Your task to perform on an android device: Go to calendar. Show me events next week Image 0: 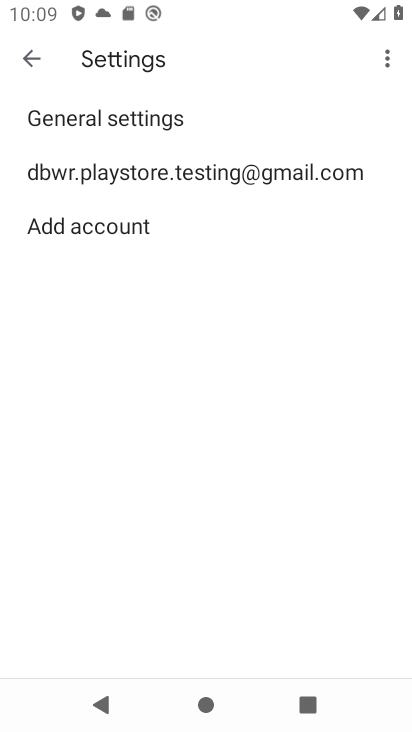
Step 0: press home button
Your task to perform on an android device: Go to calendar. Show me events next week Image 1: 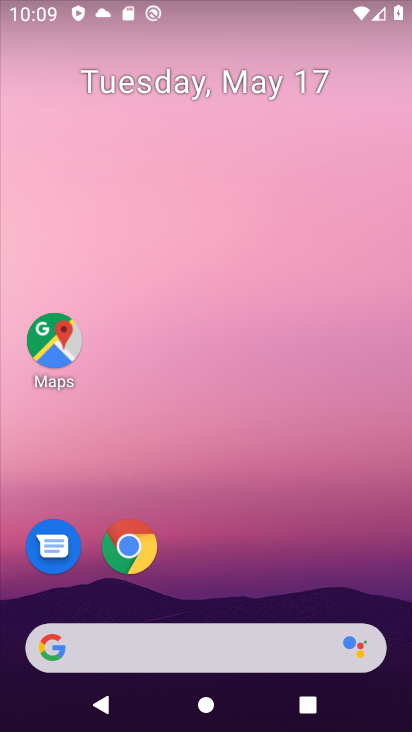
Step 1: drag from (233, 570) to (273, 144)
Your task to perform on an android device: Go to calendar. Show me events next week Image 2: 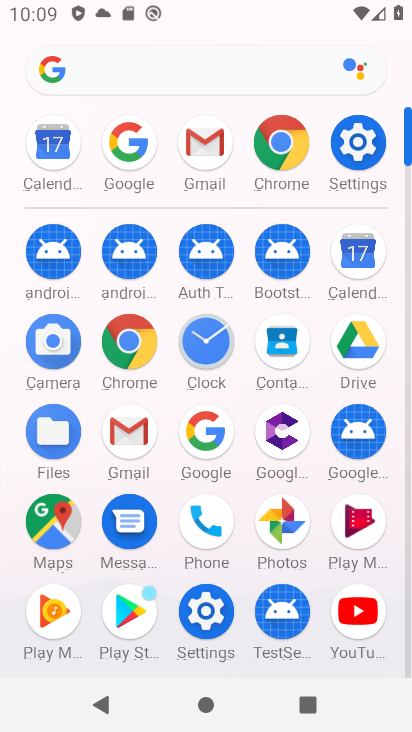
Step 2: click (47, 130)
Your task to perform on an android device: Go to calendar. Show me events next week Image 3: 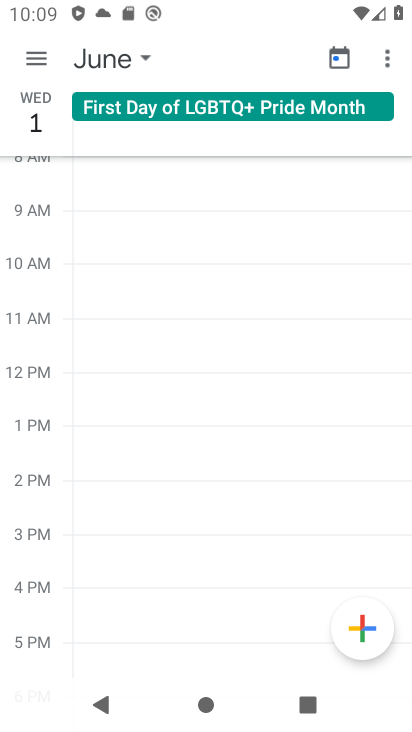
Step 3: click (31, 47)
Your task to perform on an android device: Go to calendar. Show me events next week Image 4: 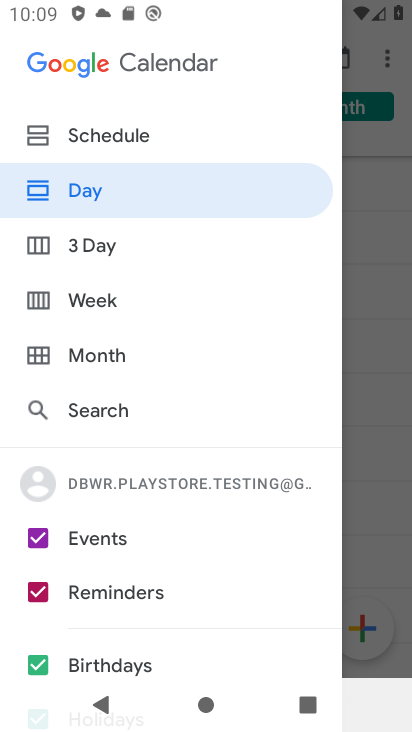
Step 4: click (105, 361)
Your task to perform on an android device: Go to calendar. Show me events next week Image 5: 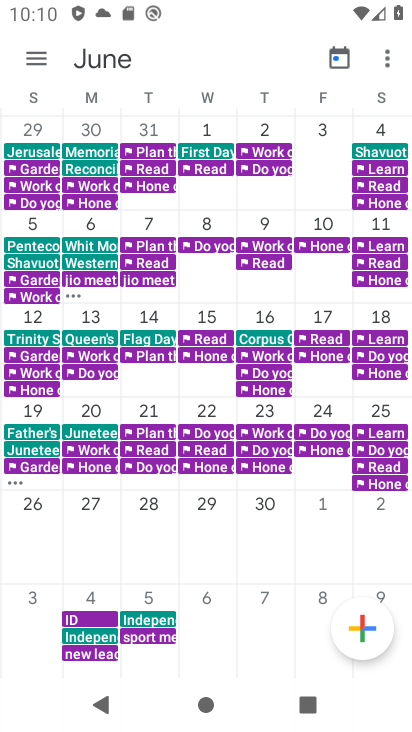
Step 5: task complete